Your task to perform on an android device: find photos in the google photos app Image 0: 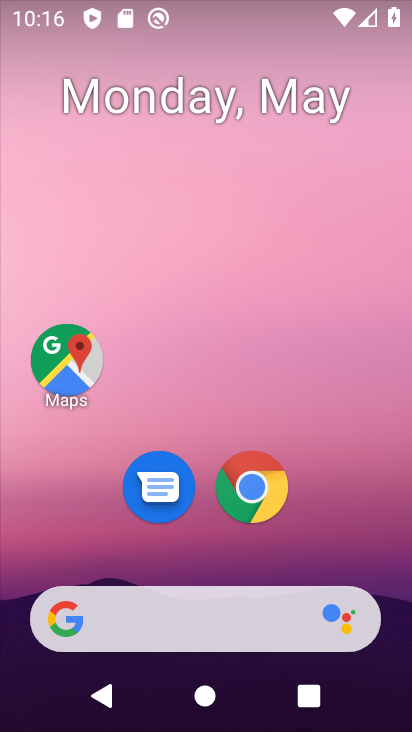
Step 0: drag from (398, 555) to (172, 6)
Your task to perform on an android device: find photos in the google photos app Image 1: 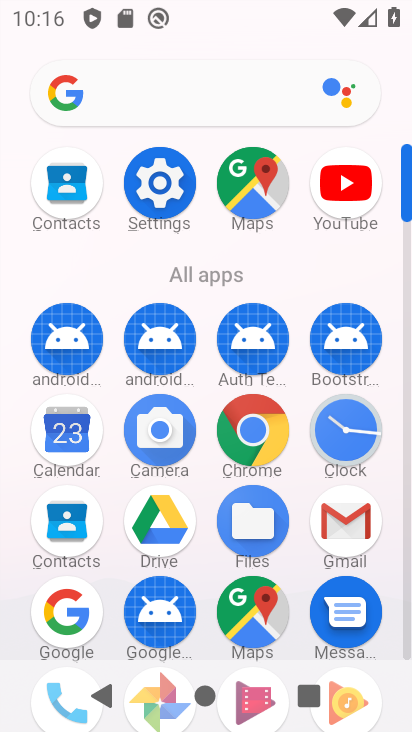
Step 1: drag from (377, 440) to (290, 211)
Your task to perform on an android device: find photos in the google photos app Image 2: 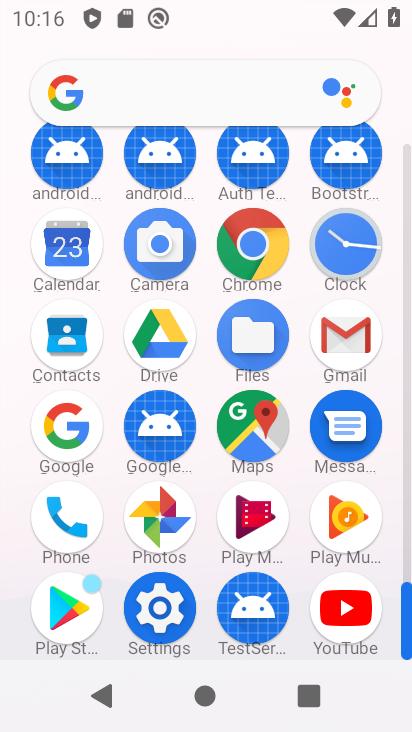
Step 2: click (157, 519)
Your task to perform on an android device: find photos in the google photos app Image 3: 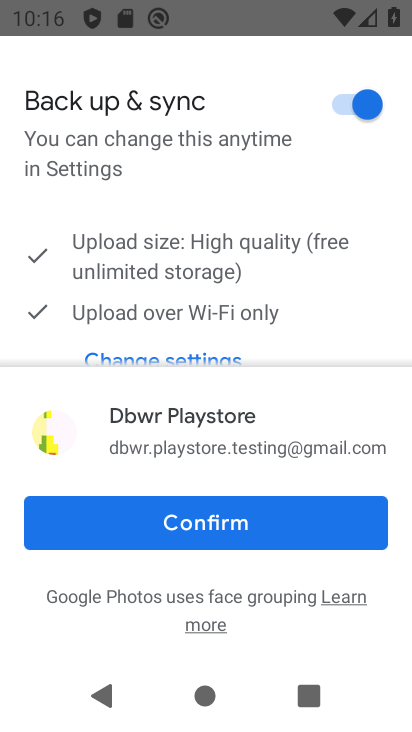
Step 3: click (164, 534)
Your task to perform on an android device: find photos in the google photos app Image 4: 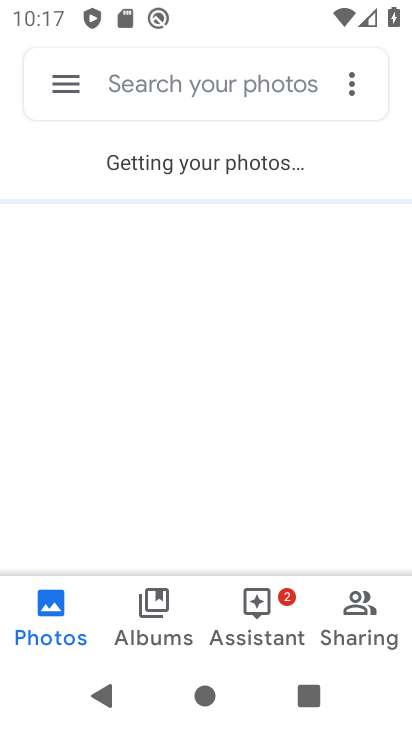
Step 4: task complete